Your task to perform on an android device: Add logitech g pro to the cart on amazon Image 0: 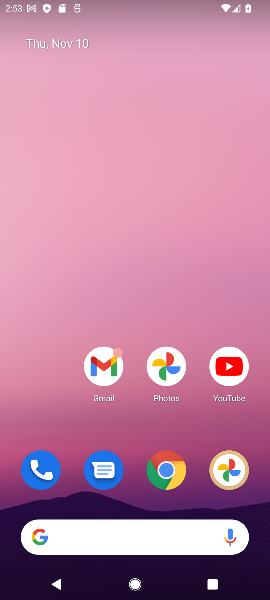
Step 0: click (171, 464)
Your task to perform on an android device: Add logitech g pro to the cart on amazon Image 1: 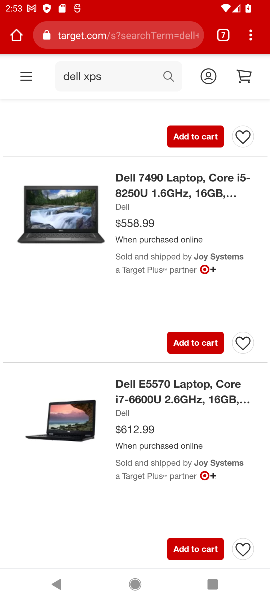
Step 1: click (225, 35)
Your task to perform on an android device: Add logitech g pro to the cart on amazon Image 2: 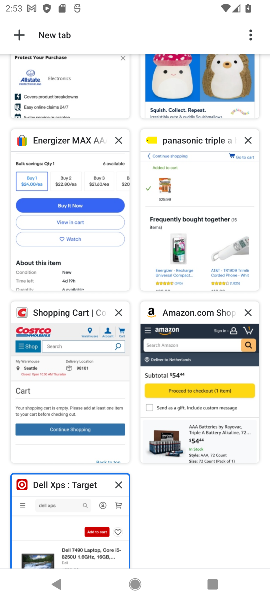
Step 2: click (162, 346)
Your task to perform on an android device: Add logitech g pro to the cart on amazon Image 3: 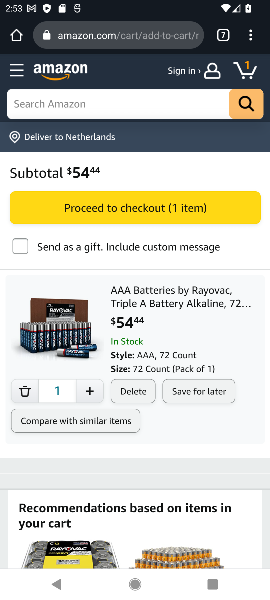
Step 3: click (71, 106)
Your task to perform on an android device: Add logitech g pro to the cart on amazon Image 4: 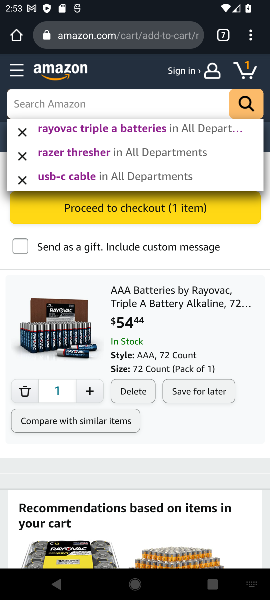
Step 4: type "logitech g pro"
Your task to perform on an android device: Add logitech g pro to the cart on amazon Image 5: 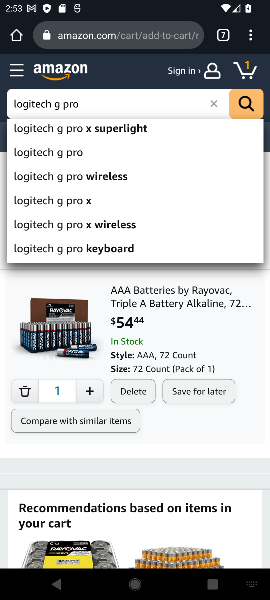
Step 5: click (63, 151)
Your task to perform on an android device: Add logitech g pro to the cart on amazon Image 6: 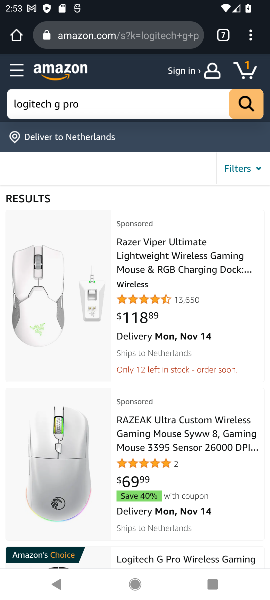
Step 6: click (247, 101)
Your task to perform on an android device: Add logitech g pro to the cart on amazon Image 7: 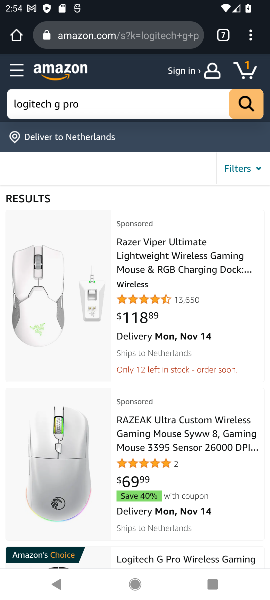
Step 7: drag from (180, 499) to (227, 312)
Your task to perform on an android device: Add logitech g pro to the cart on amazon Image 8: 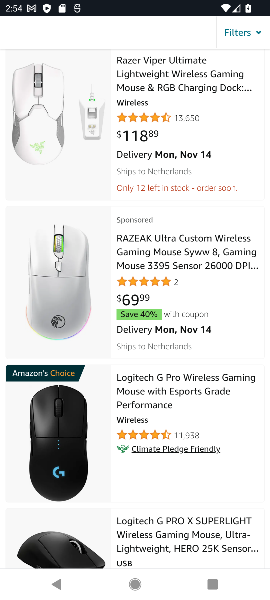
Step 8: click (142, 384)
Your task to perform on an android device: Add logitech g pro to the cart on amazon Image 9: 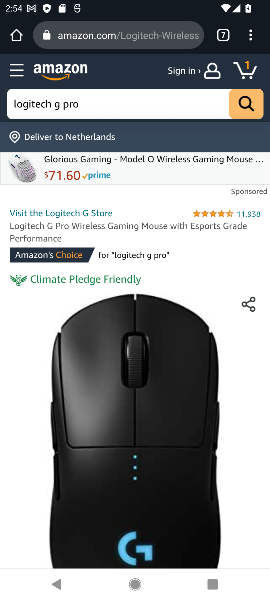
Step 9: drag from (59, 525) to (99, 90)
Your task to perform on an android device: Add logitech g pro to the cart on amazon Image 10: 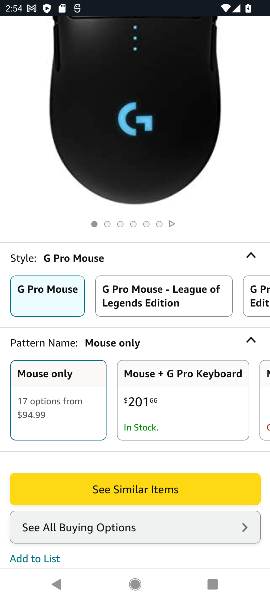
Step 10: click (142, 491)
Your task to perform on an android device: Add logitech g pro to the cart on amazon Image 11: 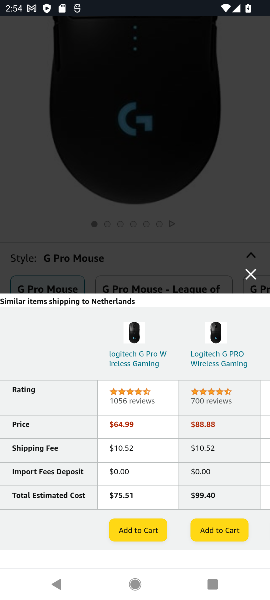
Step 11: click (137, 525)
Your task to perform on an android device: Add logitech g pro to the cart on amazon Image 12: 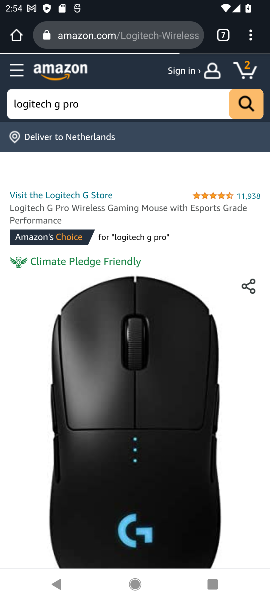
Step 12: task complete